Your task to perform on an android device: What's a goodrestaurant in Austin? Image 0: 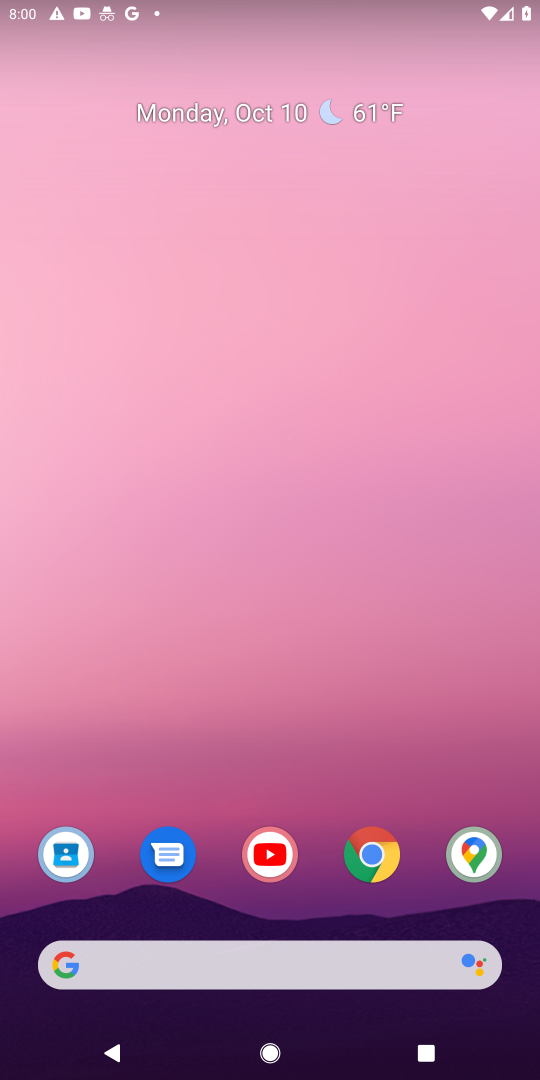
Step 0: click (368, 850)
Your task to perform on an android device: What's a goodrestaurant in Austin? Image 1: 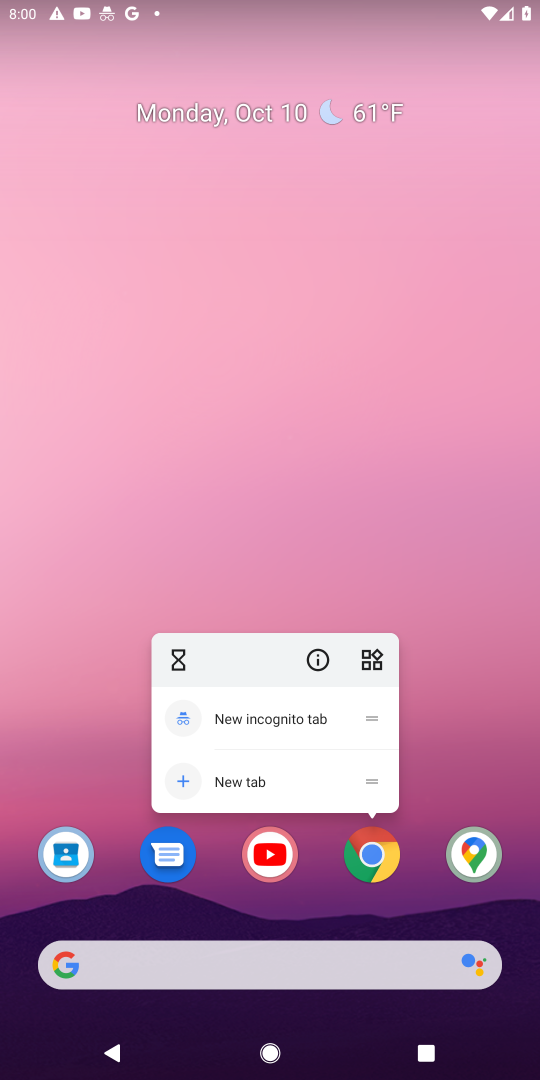
Step 1: click (368, 850)
Your task to perform on an android device: What's a goodrestaurant in Austin? Image 2: 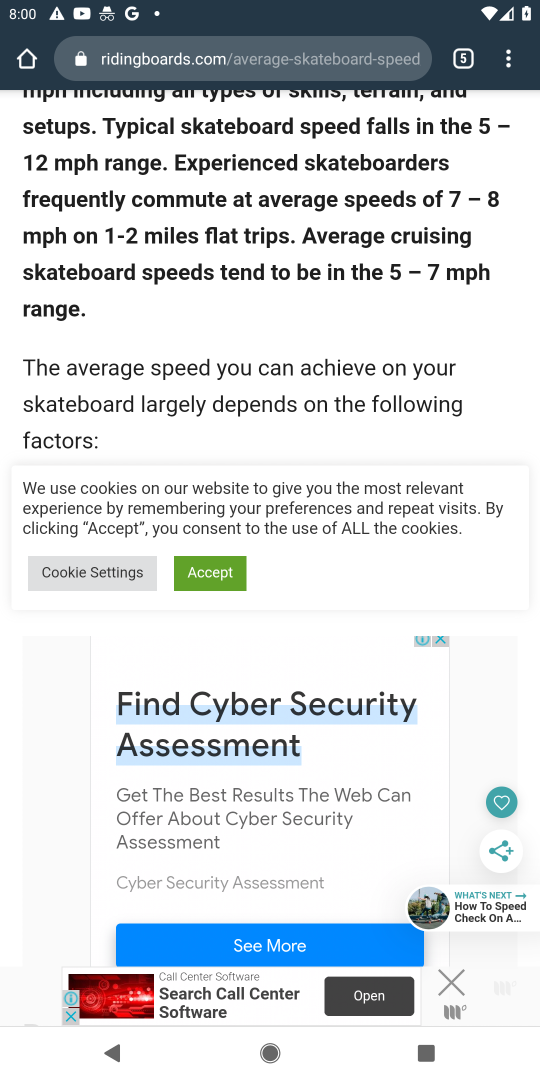
Step 2: click (326, 64)
Your task to perform on an android device: What's a goodrestaurant in Austin? Image 3: 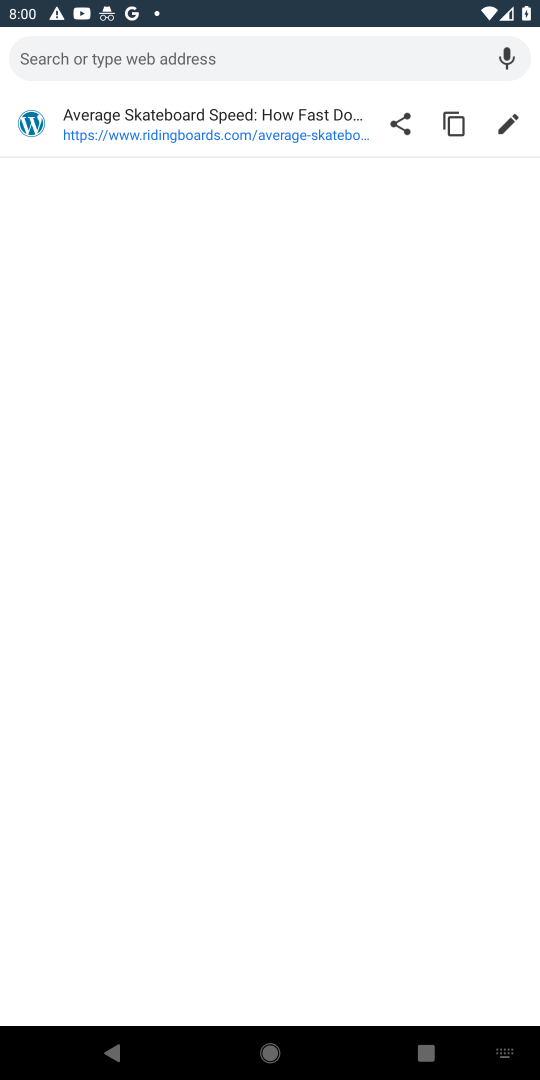
Step 3: type "goodrestaurant in Austin"
Your task to perform on an android device: What's a goodrestaurant in Austin? Image 4: 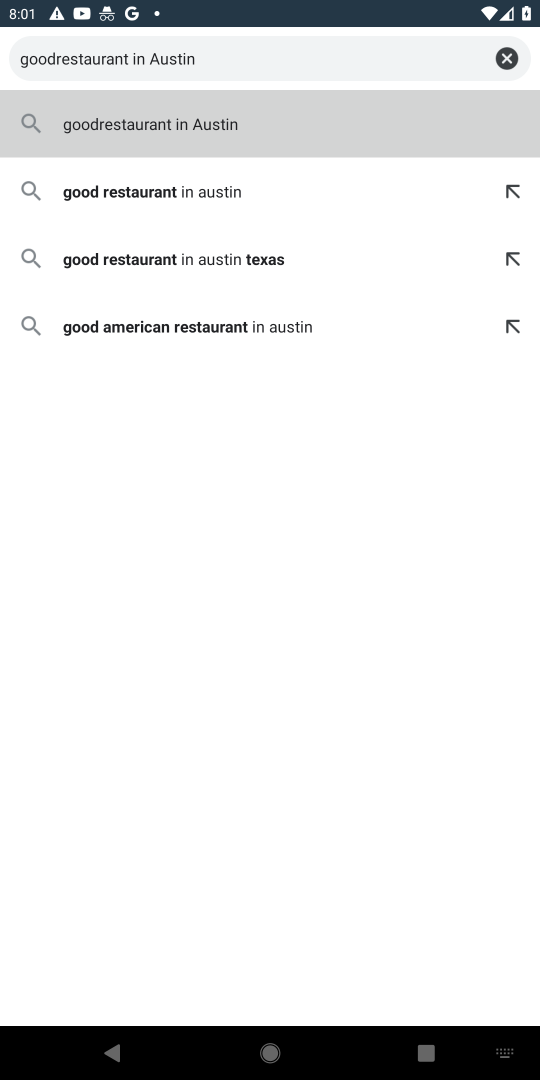
Step 4: click (150, 128)
Your task to perform on an android device: What's a goodrestaurant in Austin? Image 5: 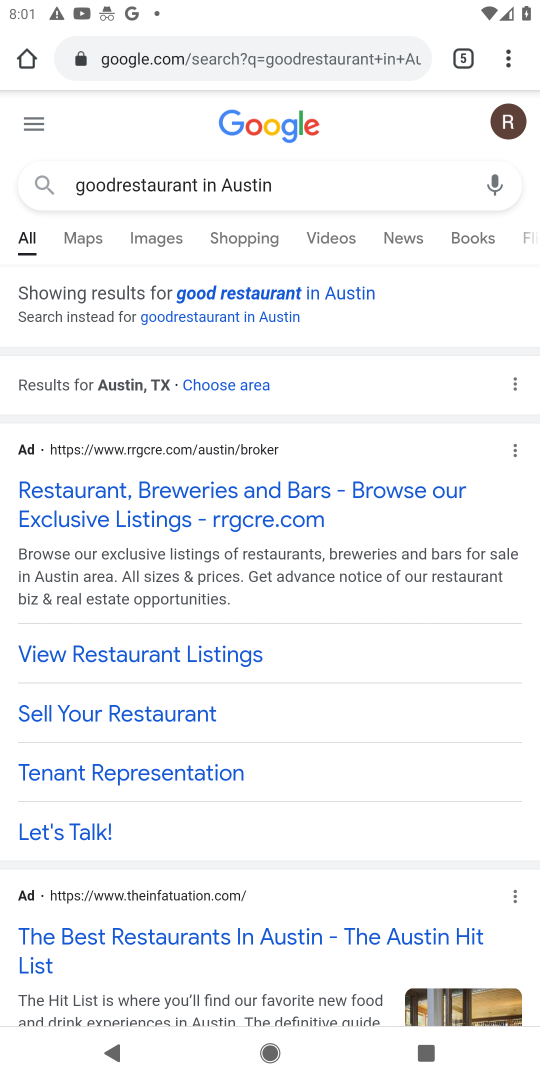
Step 5: drag from (296, 819) to (493, 29)
Your task to perform on an android device: What's a goodrestaurant in Austin? Image 6: 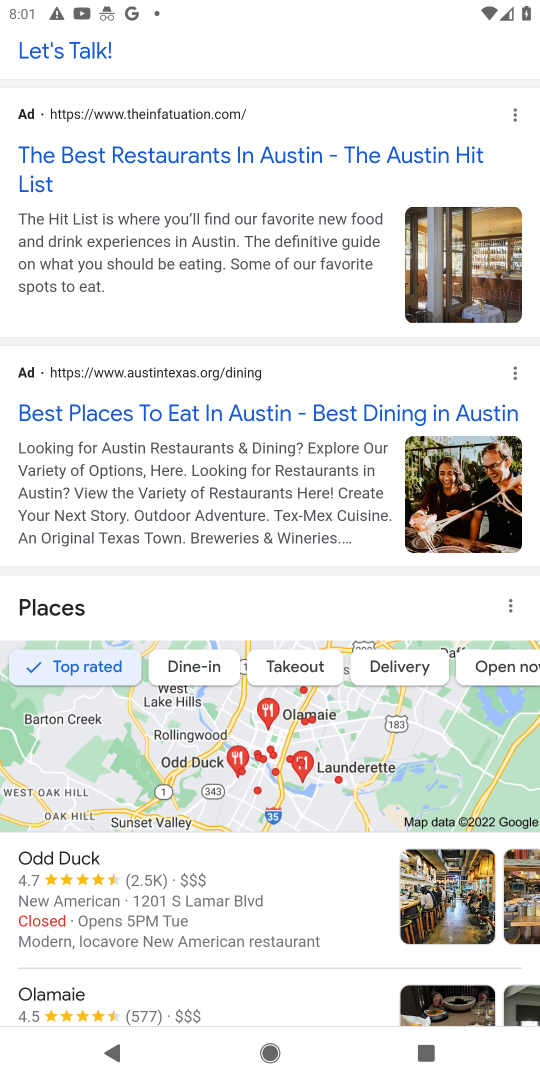
Step 6: drag from (292, 805) to (442, 229)
Your task to perform on an android device: What's a goodrestaurant in Austin? Image 7: 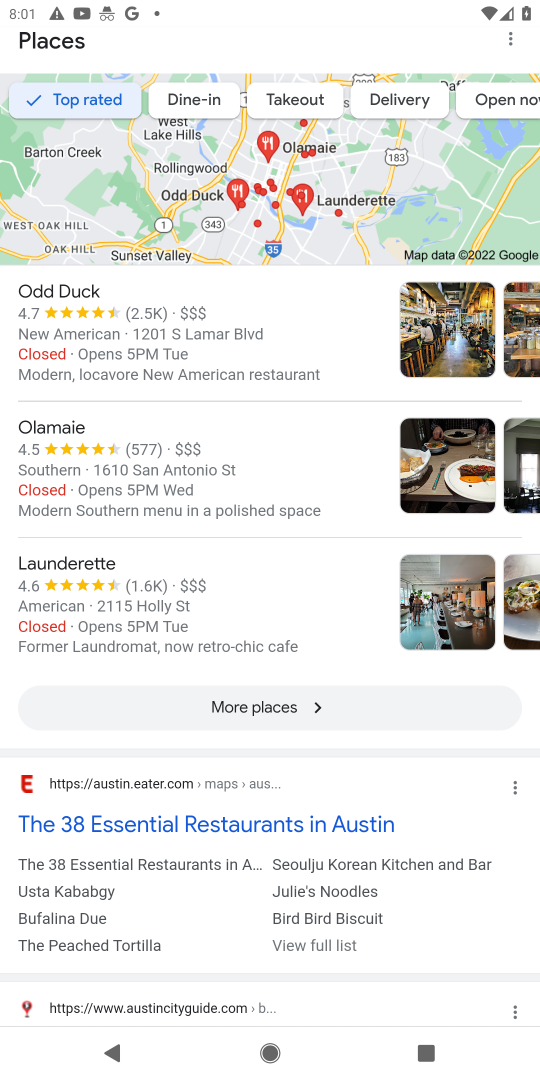
Step 7: click (281, 699)
Your task to perform on an android device: What's a goodrestaurant in Austin? Image 8: 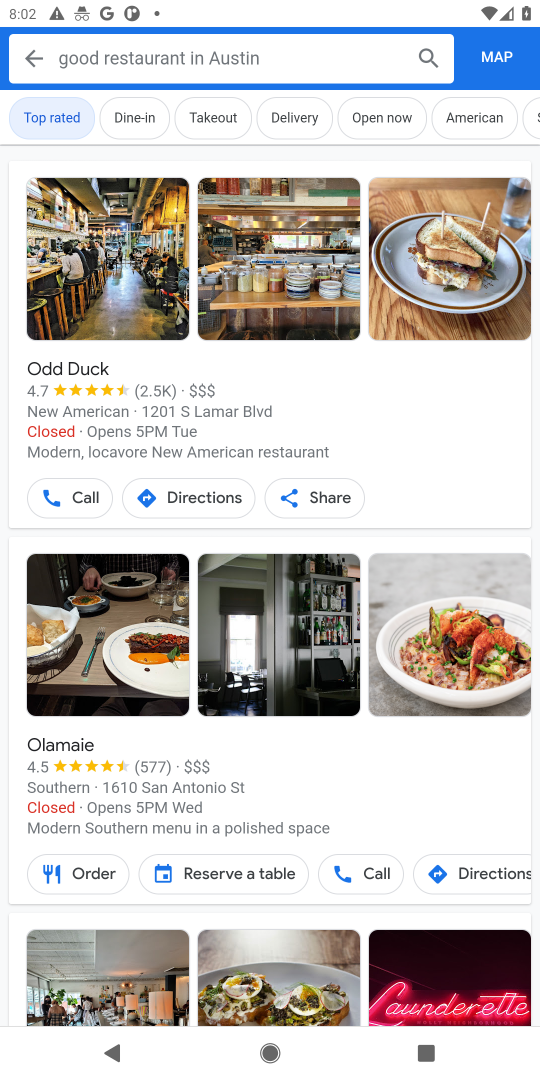
Step 8: task complete